Your task to perform on an android device: turn on priority inbox in the gmail app Image 0: 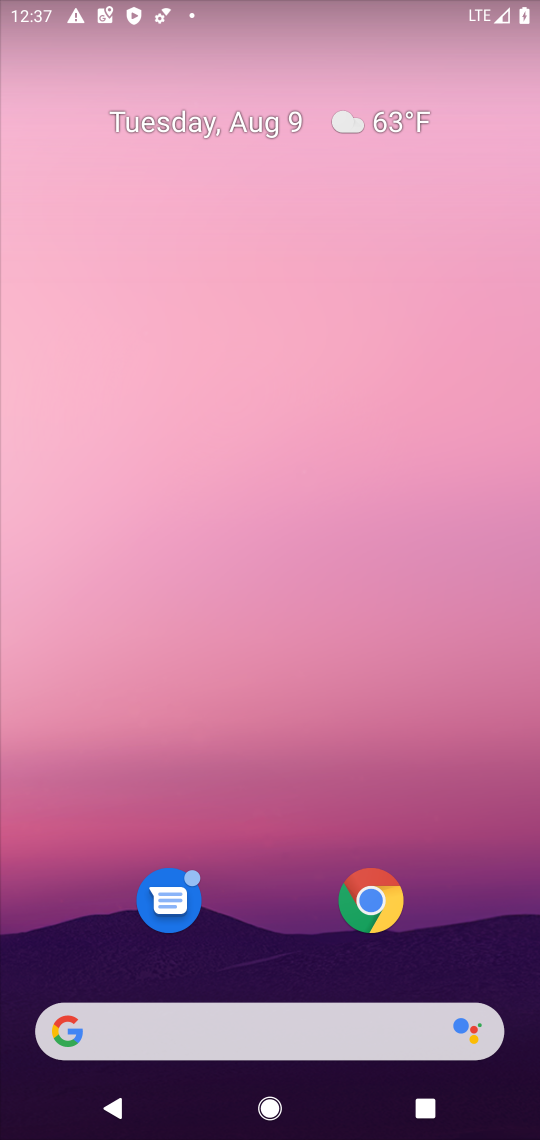
Step 0: press home button
Your task to perform on an android device: turn on priority inbox in the gmail app Image 1: 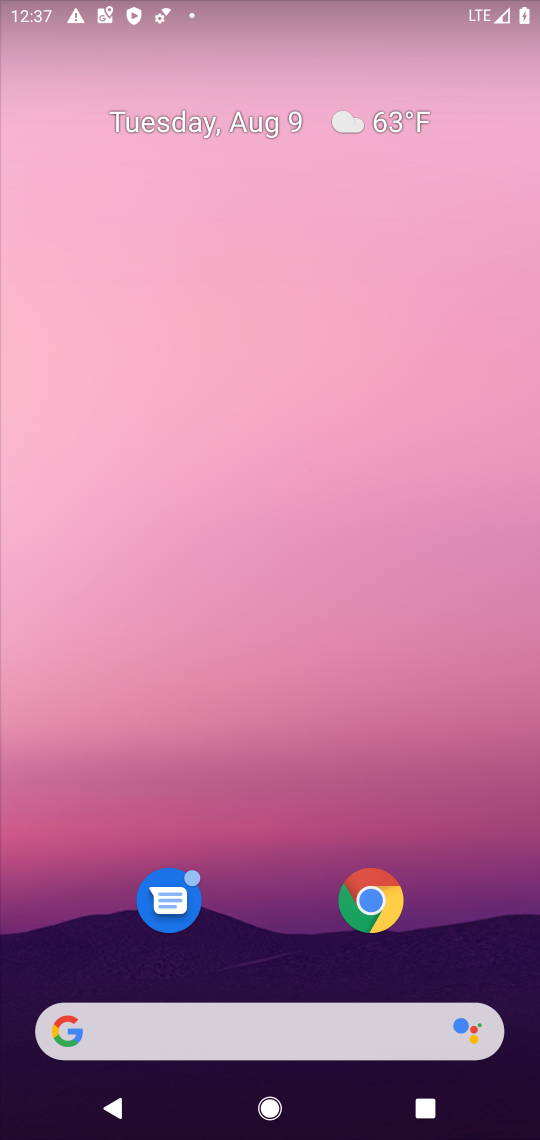
Step 1: drag from (250, 954) to (356, 128)
Your task to perform on an android device: turn on priority inbox in the gmail app Image 2: 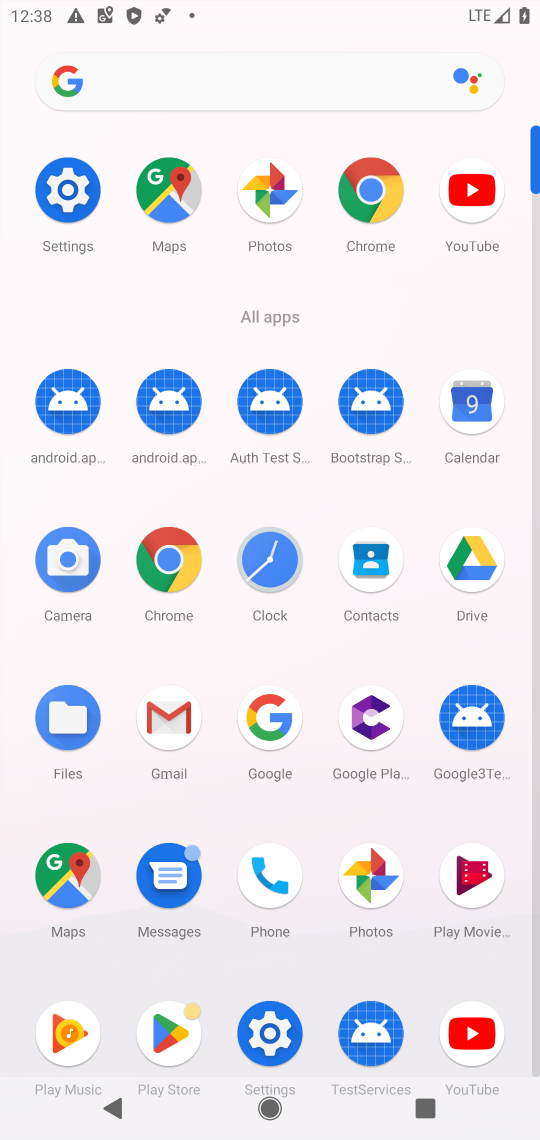
Step 2: click (169, 714)
Your task to perform on an android device: turn on priority inbox in the gmail app Image 3: 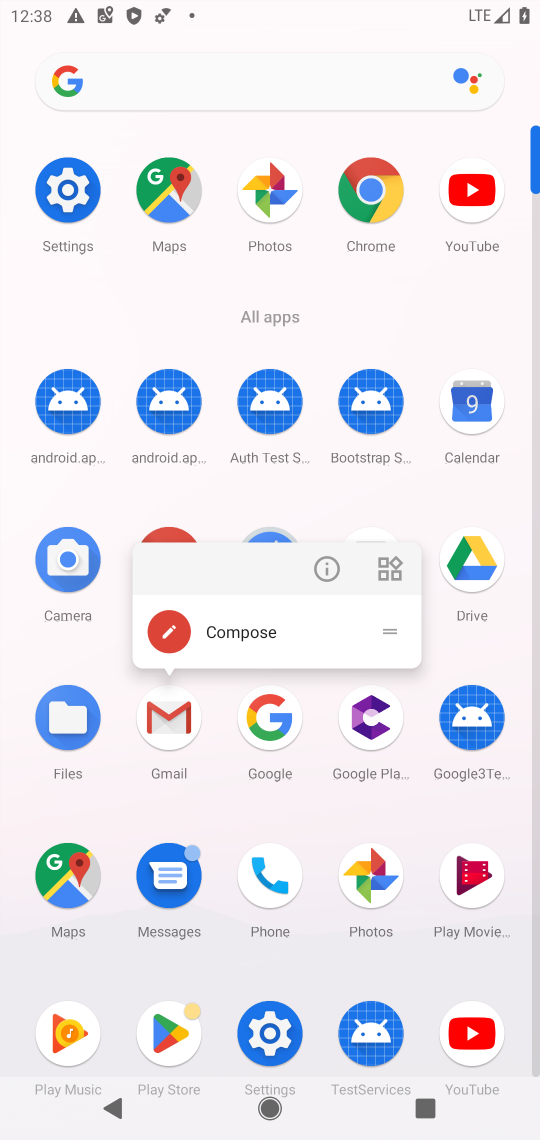
Step 3: click (169, 714)
Your task to perform on an android device: turn on priority inbox in the gmail app Image 4: 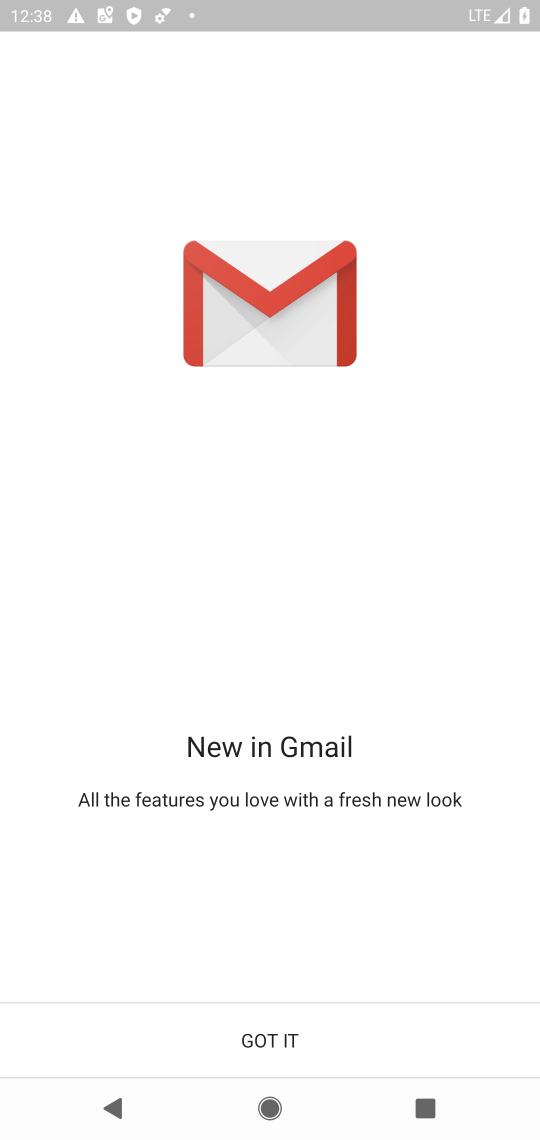
Step 4: click (258, 1044)
Your task to perform on an android device: turn on priority inbox in the gmail app Image 5: 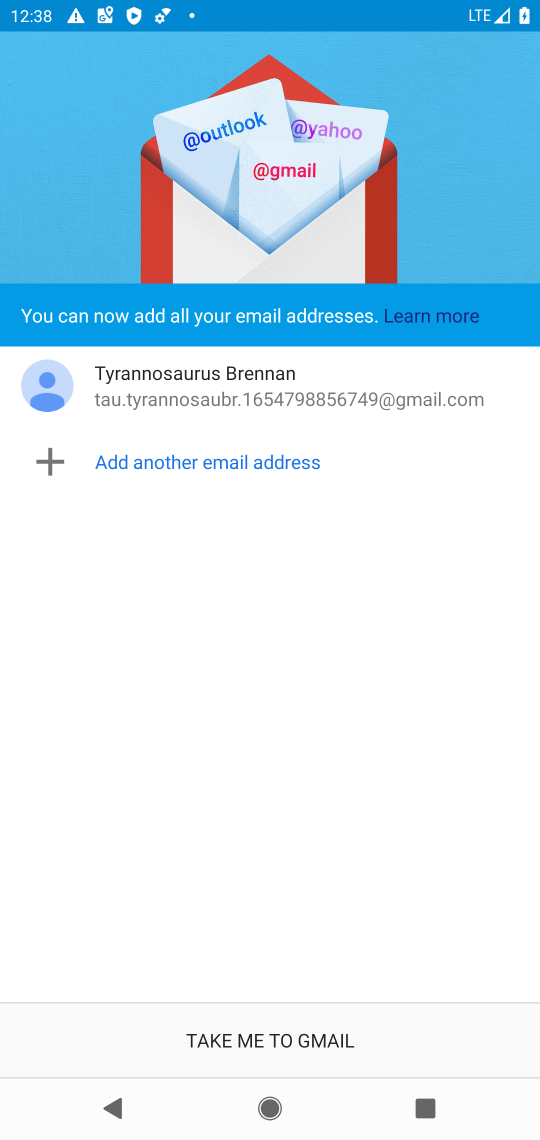
Step 5: click (264, 1040)
Your task to perform on an android device: turn on priority inbox in the gmail app Image 6: 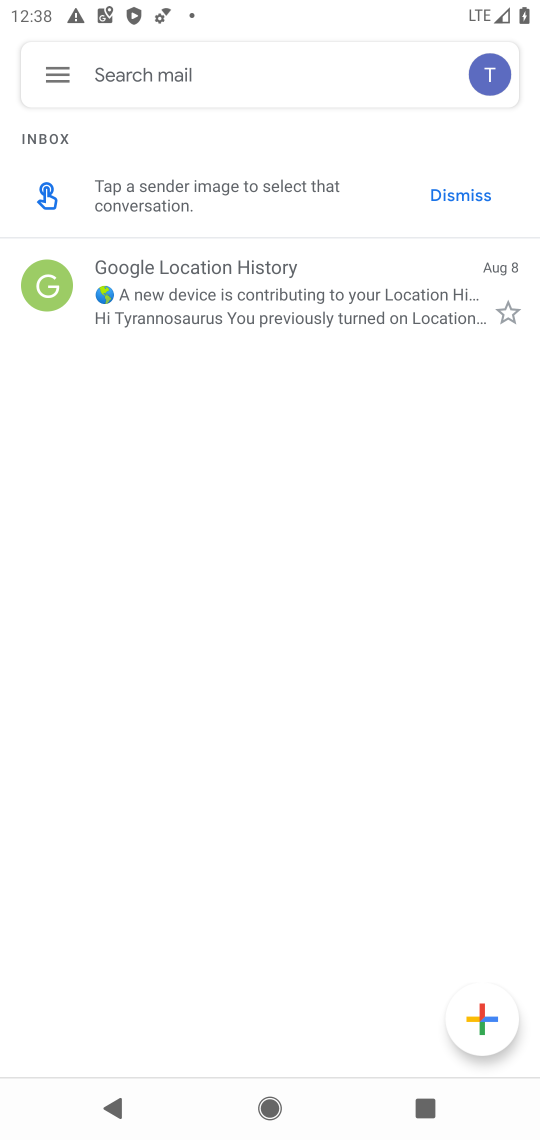
Step 6: click (55, 59)
Your task to perform on an android device: turn on priority inbox in the gmail app Image 7: 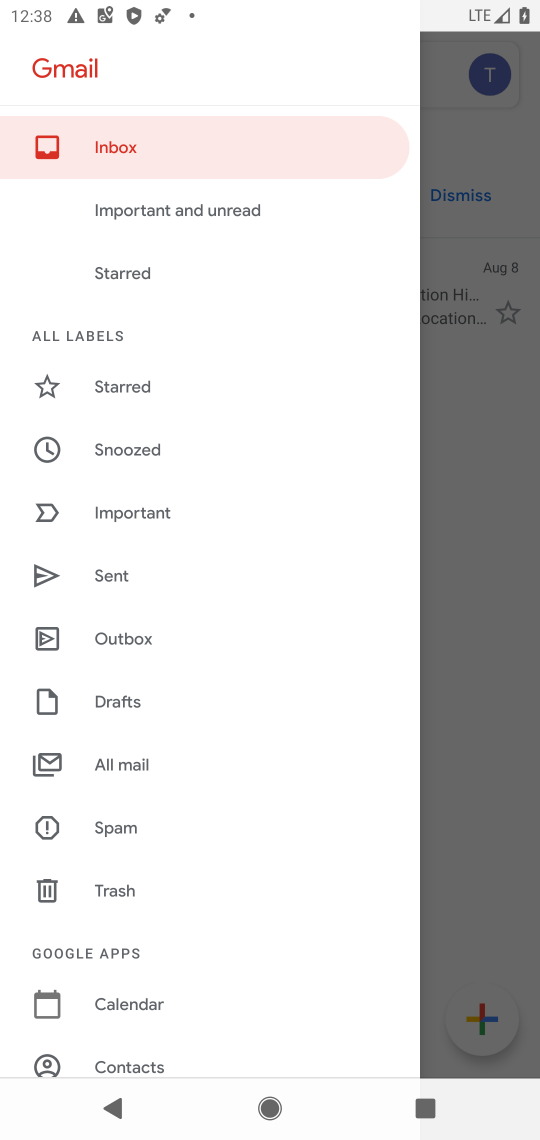
Step 7: drag from (288, 954) to (329, 655)
Your task to perform on an android device: turn on priority inbox in the gmail app Image 8: 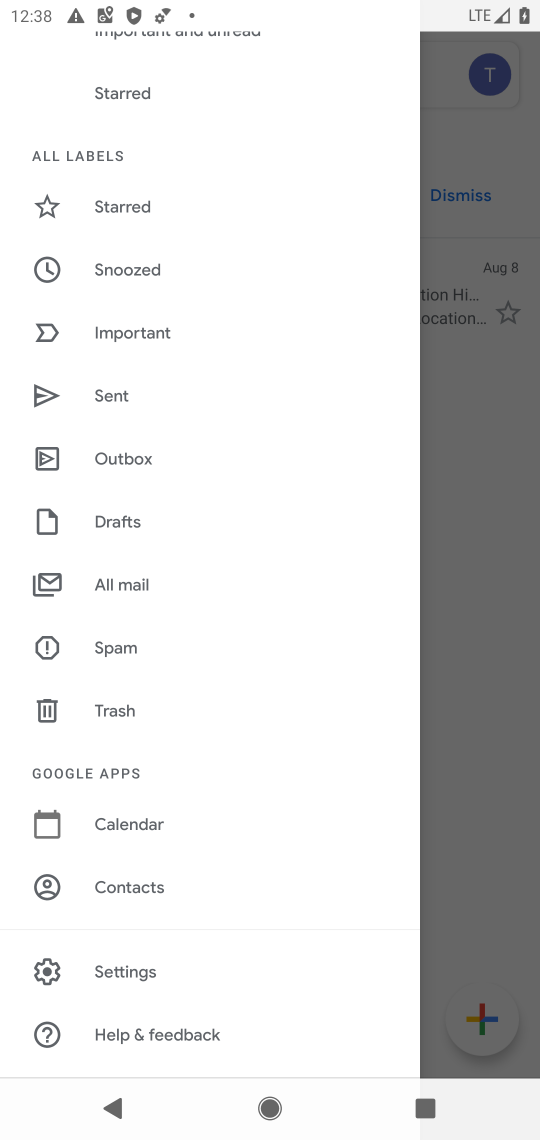
Step 8: drag from (289, 945) to (312, 668)
Your task to perform on an android device: turn on priority inbox in the gmail app Image 9: 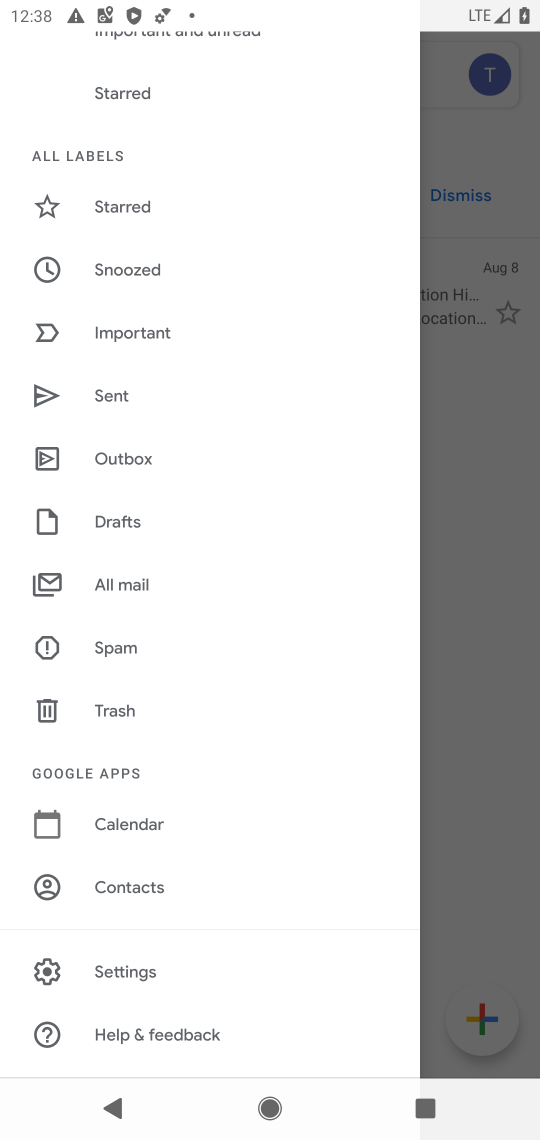
Step 9: click (126, 974)
Your task to perform on an android device: turn on priority inbox in the gmail app Image 10: 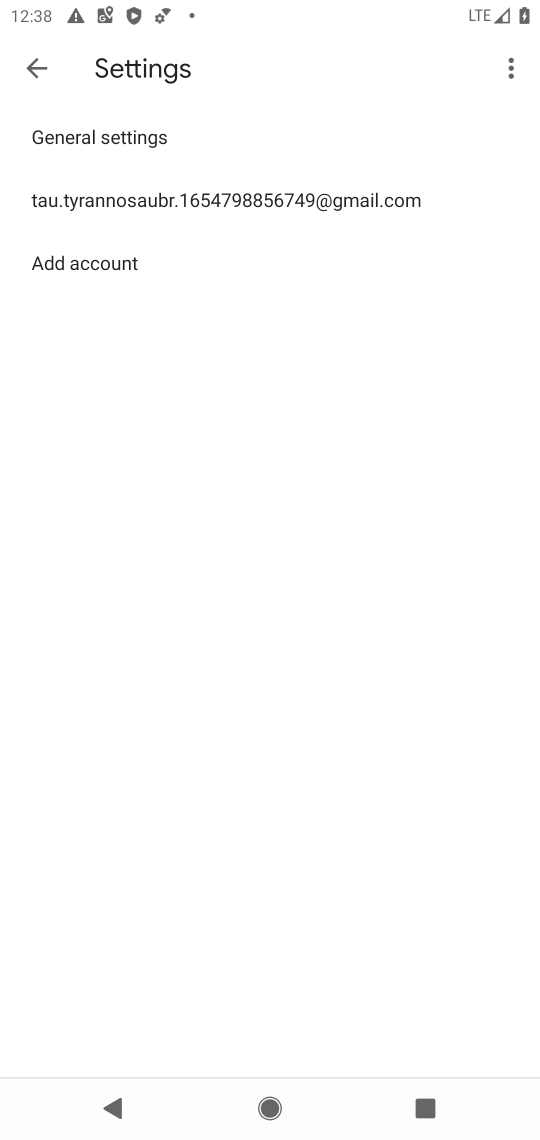
Step 10: click (206, 206)
Your task to perform on an android device: turn on priority inbox in the gmail app Image 11: 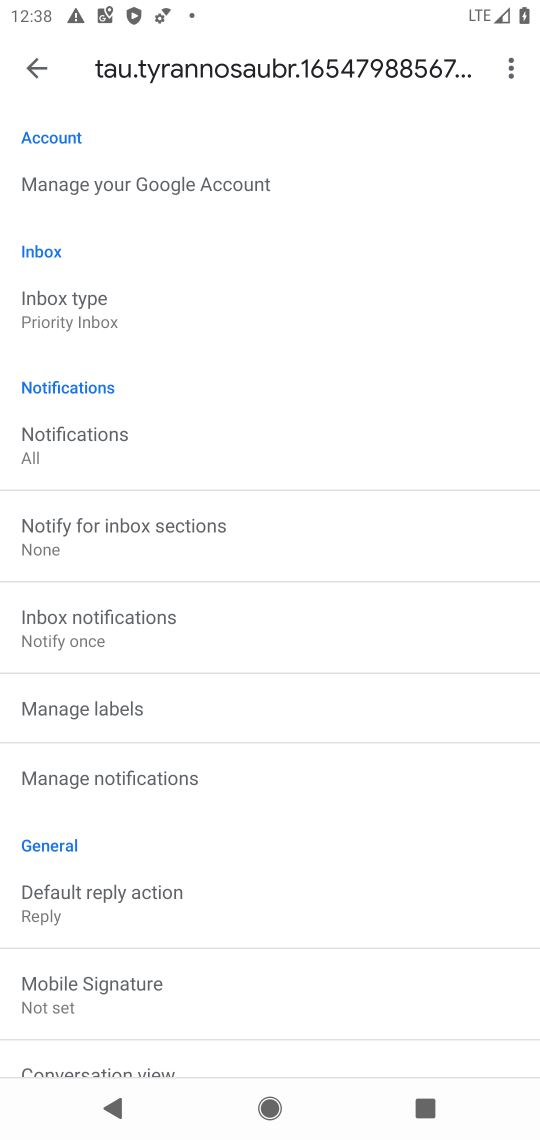
Step 11: task complete